Your task to perform on an android device: open chrome privacy settings Image 0: 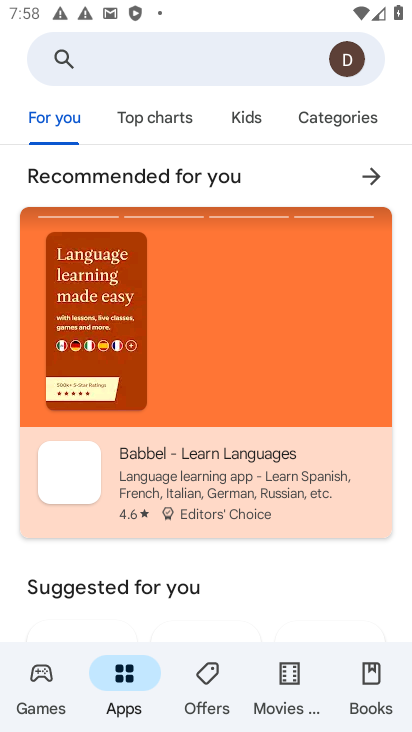
Step 0: press home button
Your task to perform on an android device: open chrome privacy settings Image 1: 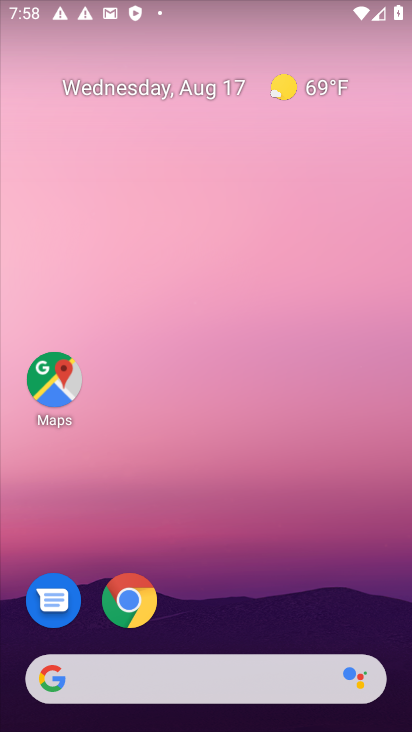
Step 1: click (138, 605)
Your task to perform on an android device: open chrome privacy settings Image 2: 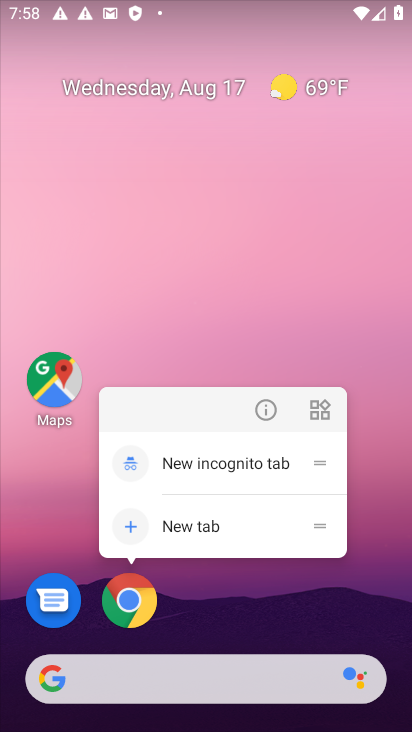
Step 2: click (128, 582)
Your task to perform on an android device: open chrome privacy settings Image 3: 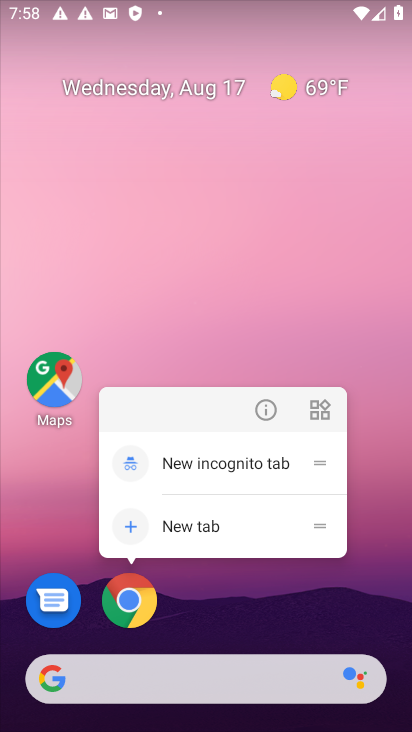
Step 3: click (128, 597)
Your task to perform on an android device: open chrome privacy settings Image 4: 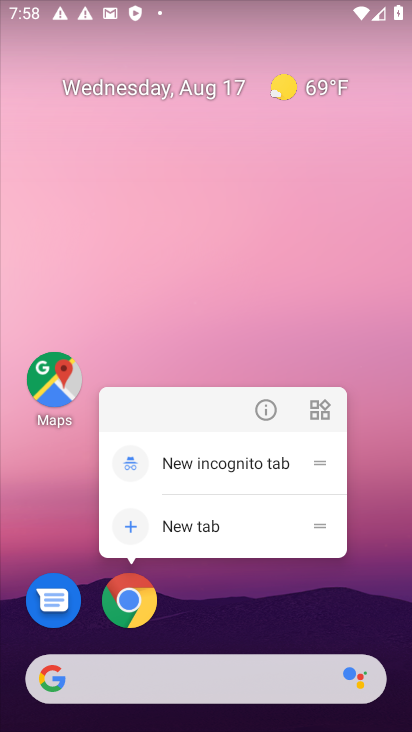
Step 4: click (128, 597)
Your task to perform on an android device: open chrome privacy settings Image 5: 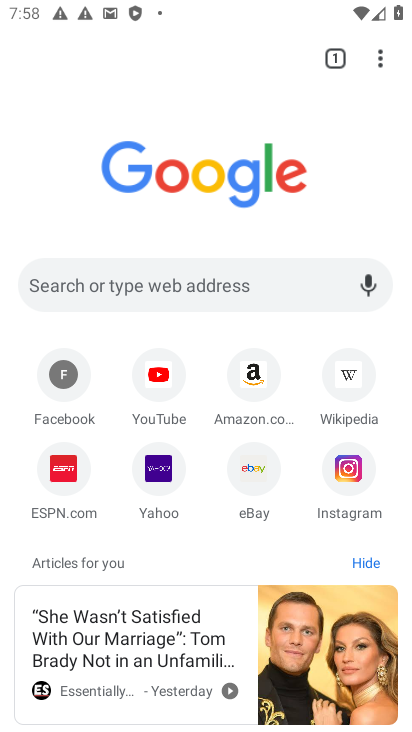
Step 5: drag from (380, 53) to (168, 493)
Your task to perform on an android device: open chrome privacy settings Image 6: 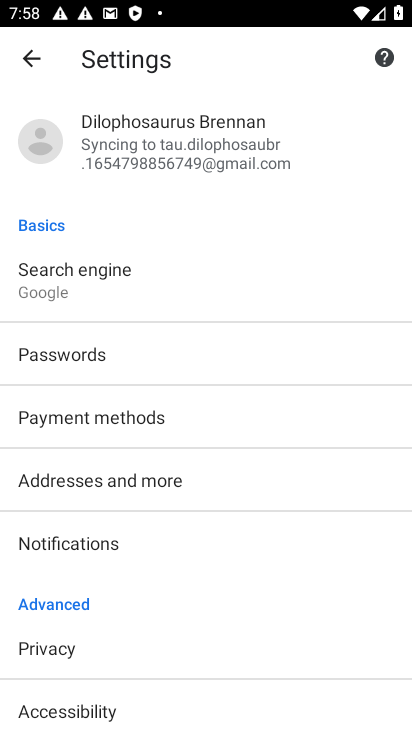
Step 6: click (96, 654)
Your task to perform on an android device: open chrome privacy settings Image 7: 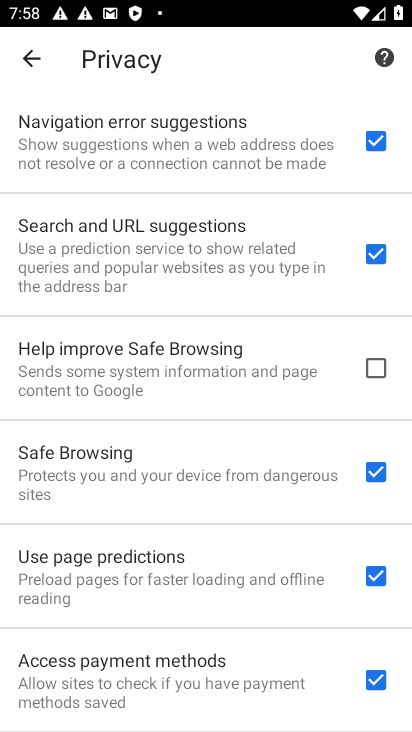
Step 7: task complete